Your task to perform on an android device: toggle wifi Image 0: 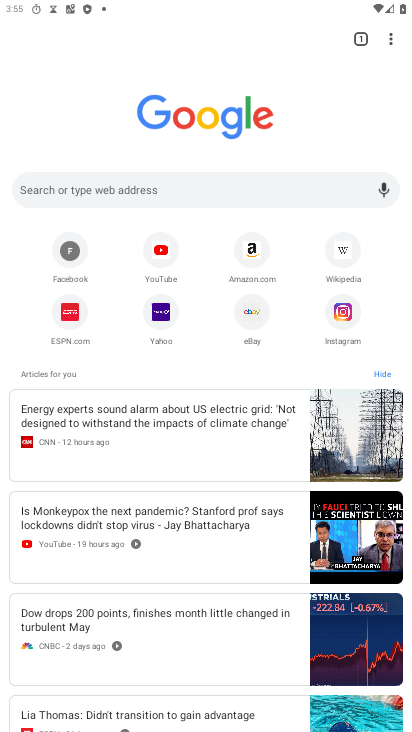
Step 0: drag from (255, 2) to (141, 598)
Your task to perform on an android device: toggle wifi Image 1: 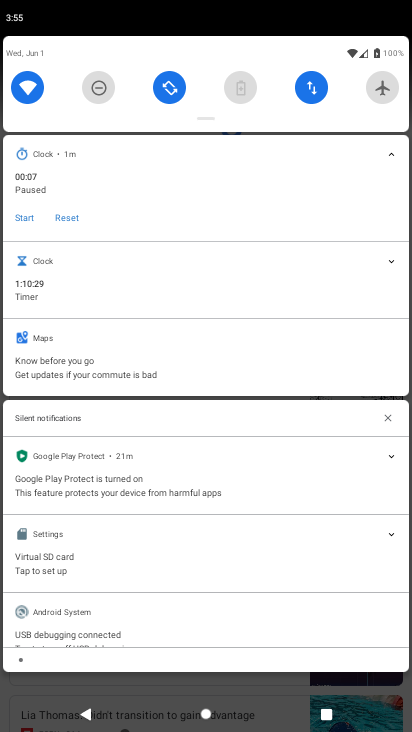
Step 1: click (33, 88)
Your task to perform on an android device: toggle wifi Image 2: 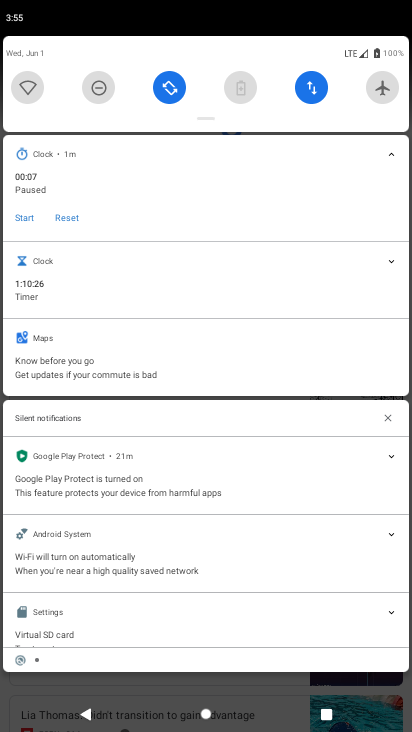
Step 2: task complete